Your task to perform on an android device: open app "DoorDash - Food Delivery" Image 0: 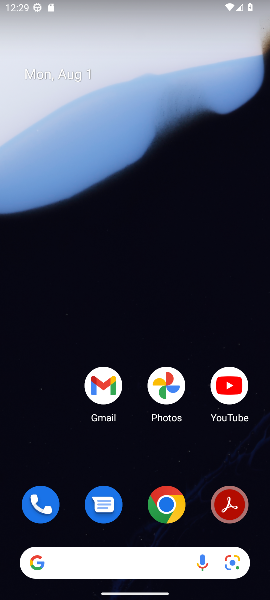
Step 0: drag from (121, 554) to (153, 21)
Your task to perform on an android device: open app "DoorDash - Food Delivery" Image 1: 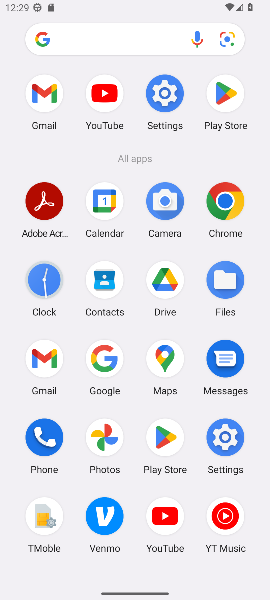
Step 1: click (223, 87)
Your task to perform on an android device: open app "DoorDash - Food Delivery" Image 2: 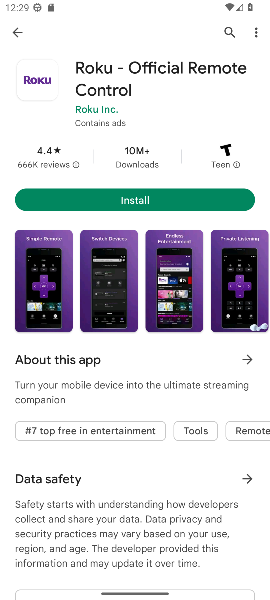
Step 2: click (230, 27)
Your task to perform on an android device: open app "DoorDash - Food Delivery" Image 3: 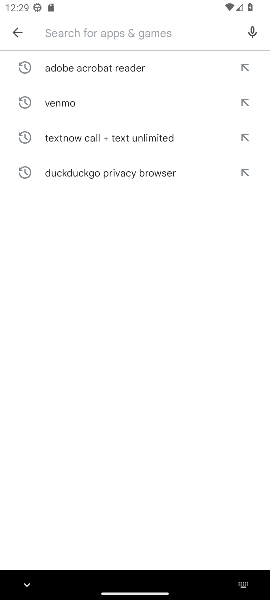
Step 3: type "doordash -  food delivery"
Your task to perform on an android device: open app "DoorDash - Food Delivery" Image 4: 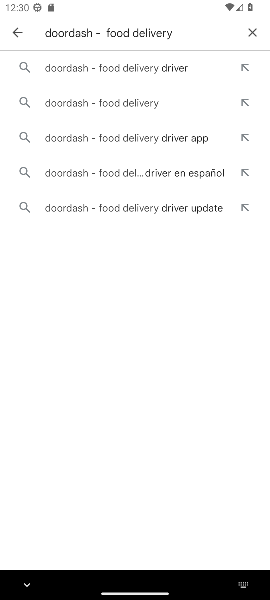
Step 4: click (125, 60)
Your task to perform on an android device: open app "DoorDash - Food Delivery" Image 5: 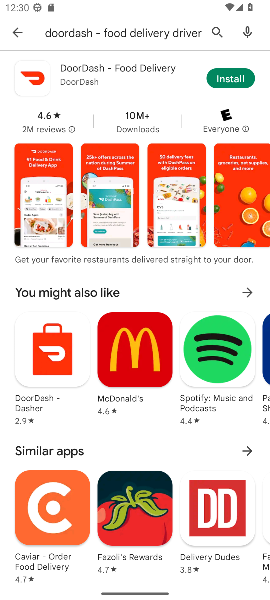
Step 5: task complete